Your task to perform on an android device: Open Chrome and go to settings Image 0: 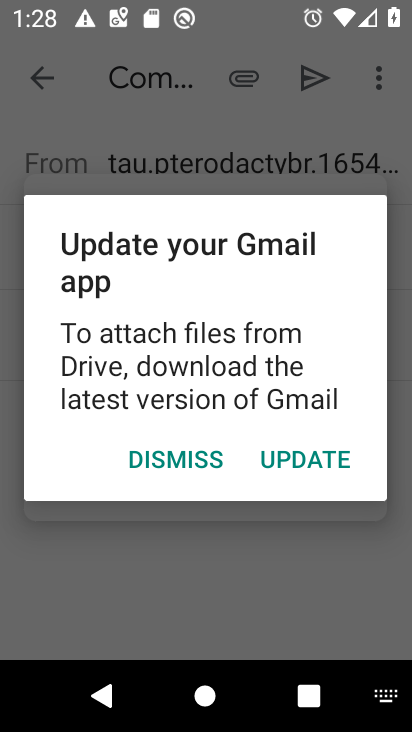
Step 0: click (151, 467)
Your task to perform on an android device: Open Chrome and go to settings Image 1: 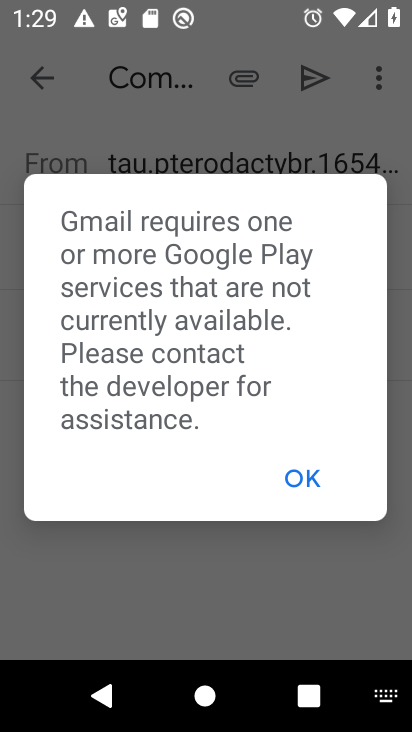
Step 1: press back button
Your task to perform on an android device: Open Chrome and go to settings Image 2: 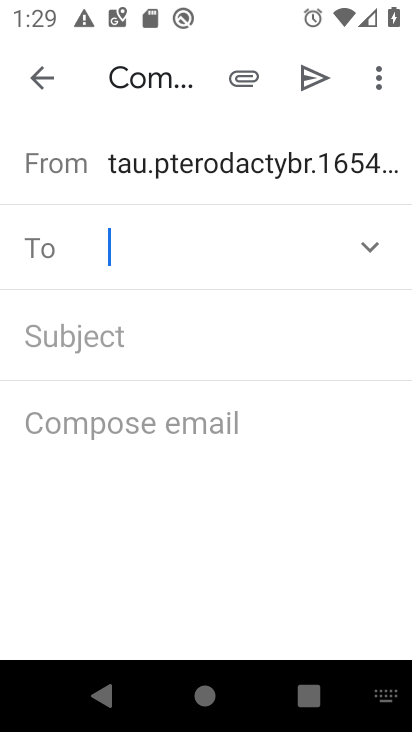
Step 2: press back button
Your task to perform on an android device: Open Chrome and go to settings Image 3: 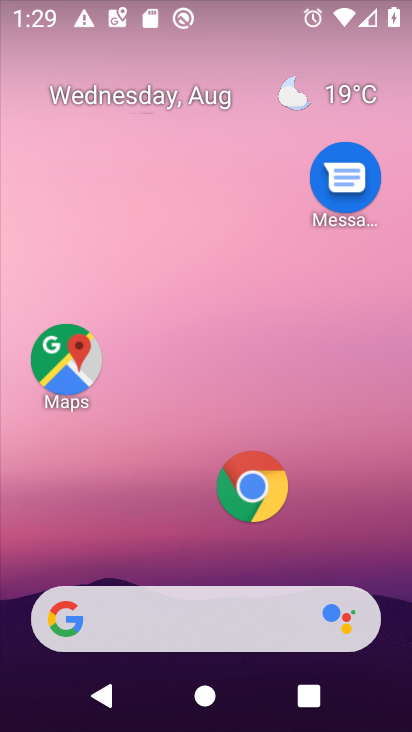
Step 3: click (250, 479)
Your task to perform on an android device: Open Chrome and go to settings Image 4: 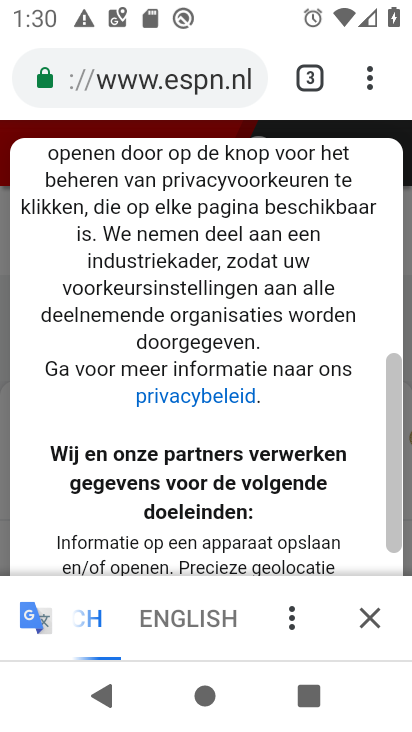
Step 4: task complete